Your task to perform on an android device: open app "ColorNote Notepad Notes" Image 0: 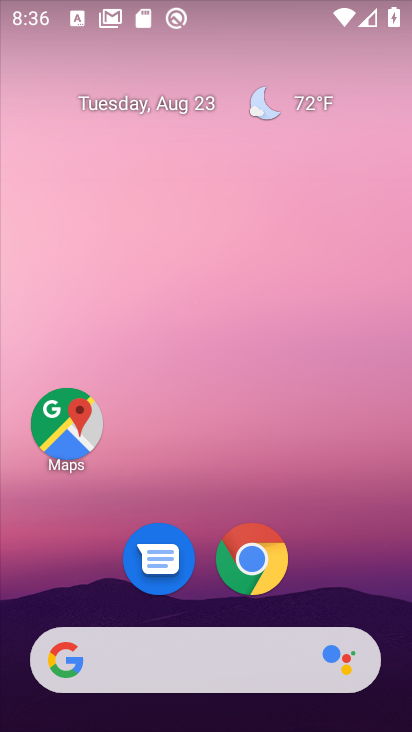
Step 0: drag from (192, 506) to (182, 148)
Your task to perform on an android device: open app "ColorNote Notepad Notes" Image 1: 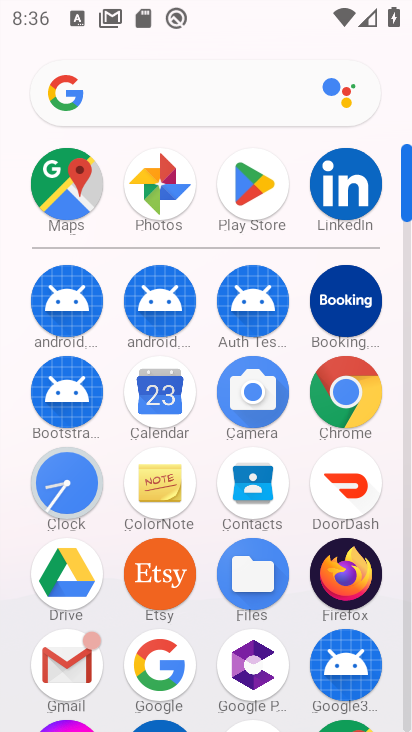
Step 1: click (270, 199)
Your task to perform on an android device: open app "ColorNote Notepad Notes" Image 2: 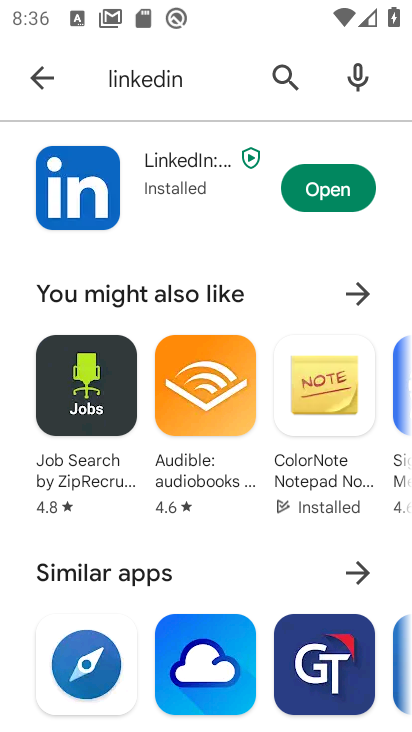
Step 2: click (289, 71)
Your task to perform on an android device: open app "ColorNote Notepad Notes" Image 3: 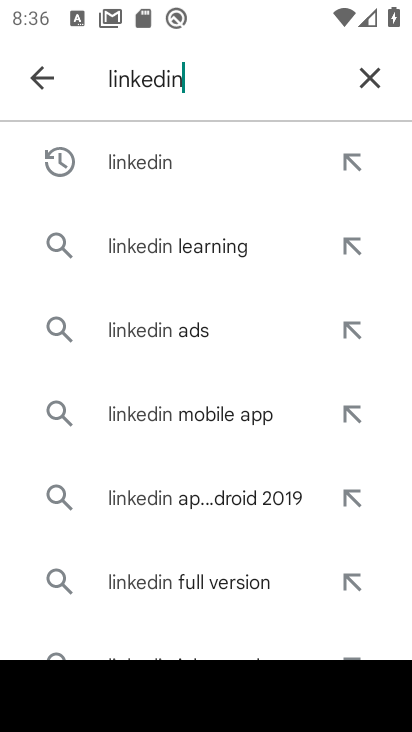
Step 3: click (362, 76)
Your task to perform on an android device: open app "ColorNote Notepad Notes" Image 4: 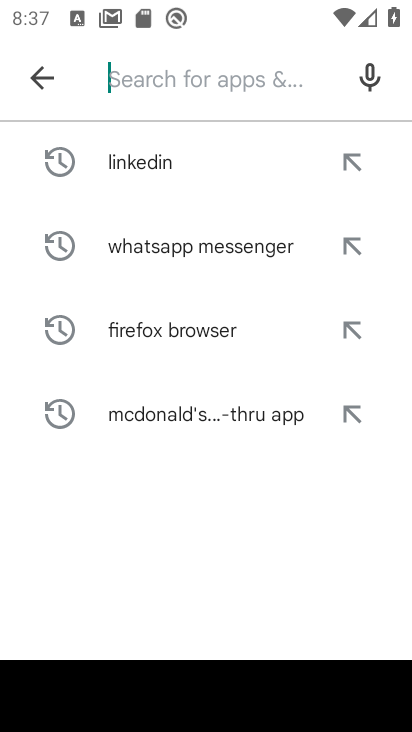
Step 4: type "ColorNote Notepad Notes"
Your task to perform on an android device: open app "ColorNote Notepad Notes" Image 5: 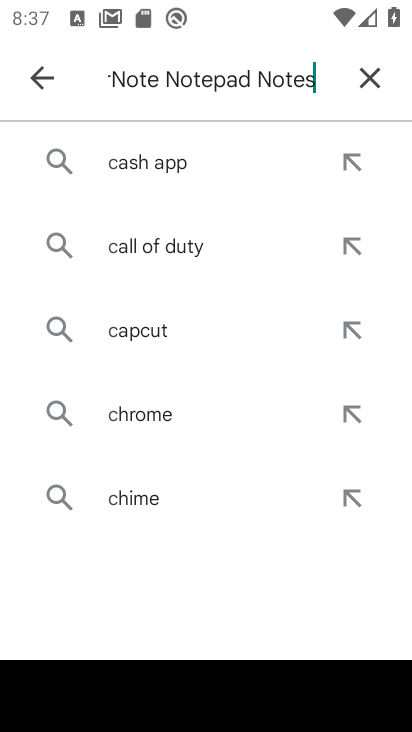
Step 5: type ""
Your task to perform on an android device: open app "ColorNote Notepad Notes" Image 6: 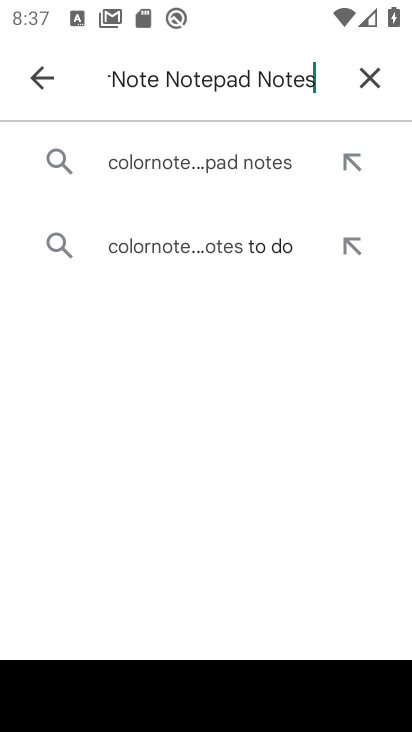
Step 6: click (205, 169)
Your task to perform on an android device: open app "ColorNote Notepad Notes" Image 7: 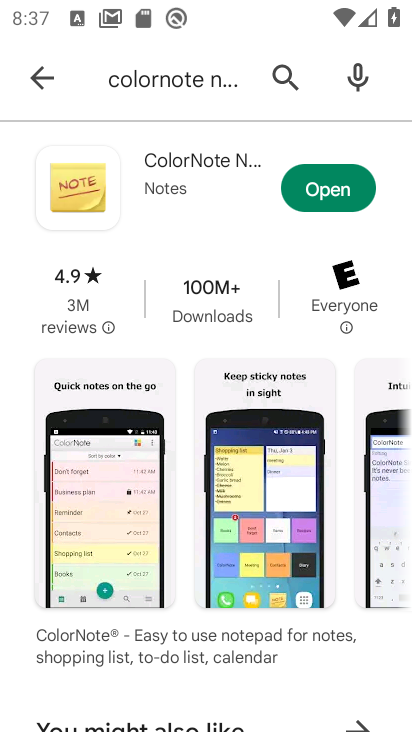
Step 7: click (306, 183)
Your task to perform on an android device: open app "ColorNote Notepad Notes" Image 8: 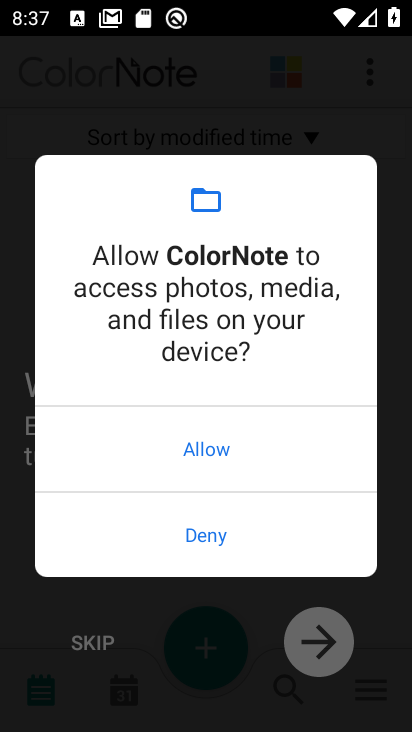
Step 8: click (187, 422)
Your task to perform on an android device: open app "ColorNote Notepad Notes" Image 9: 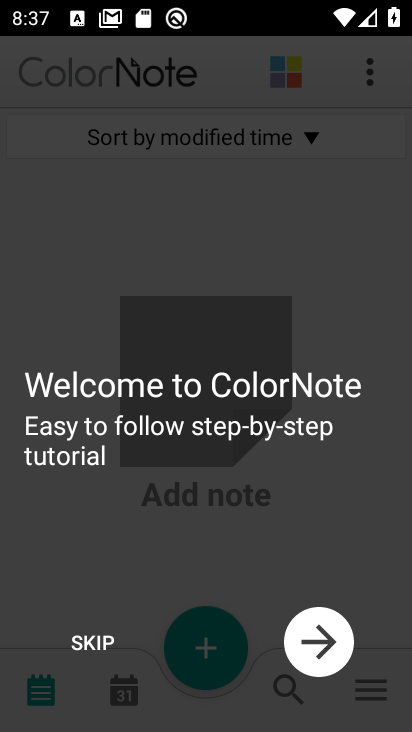
Step 9: task complete